Your task to perform on an android device: star an email in the gmail app Image 0: 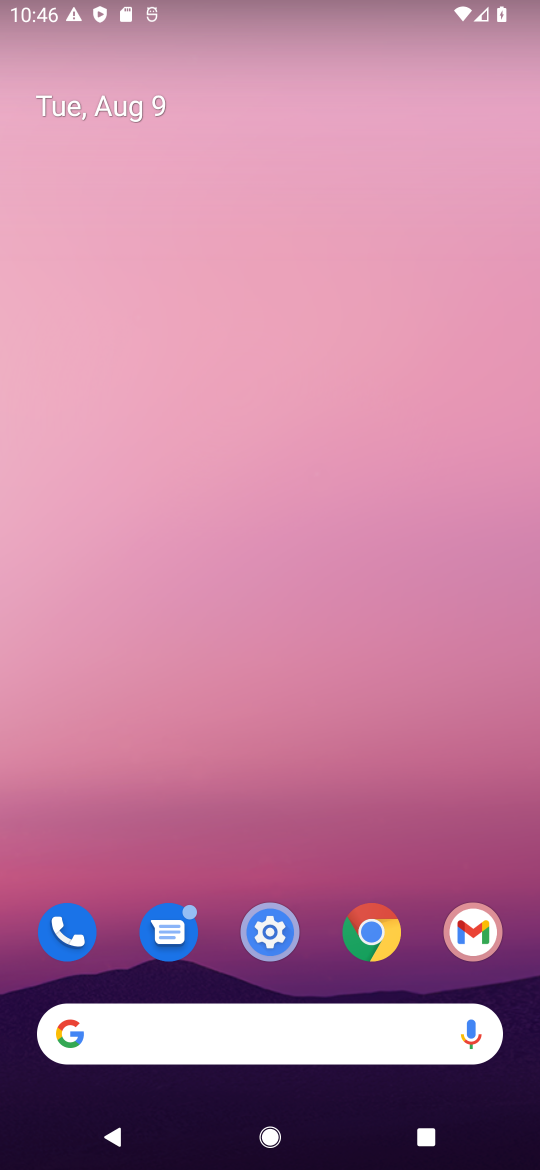
Step 0: drag from (302, 965) to (238, 2)
Your task to perform on an android device: star an email in the gmail app Image 1: 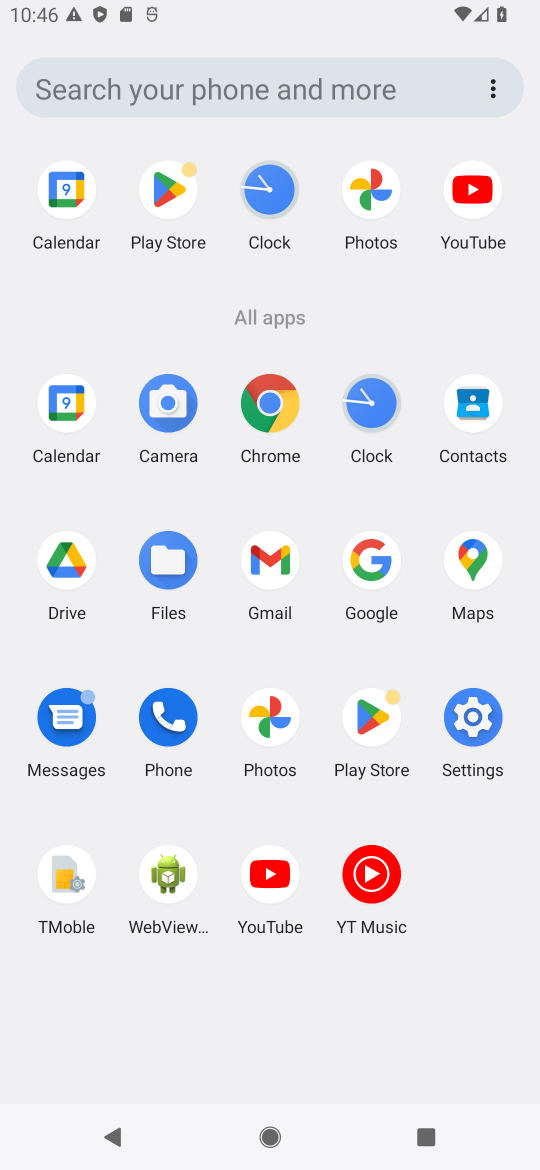
Step 1: click (268, 560)
Your task to perform on an android device: star an email in the gmail app Image 2: 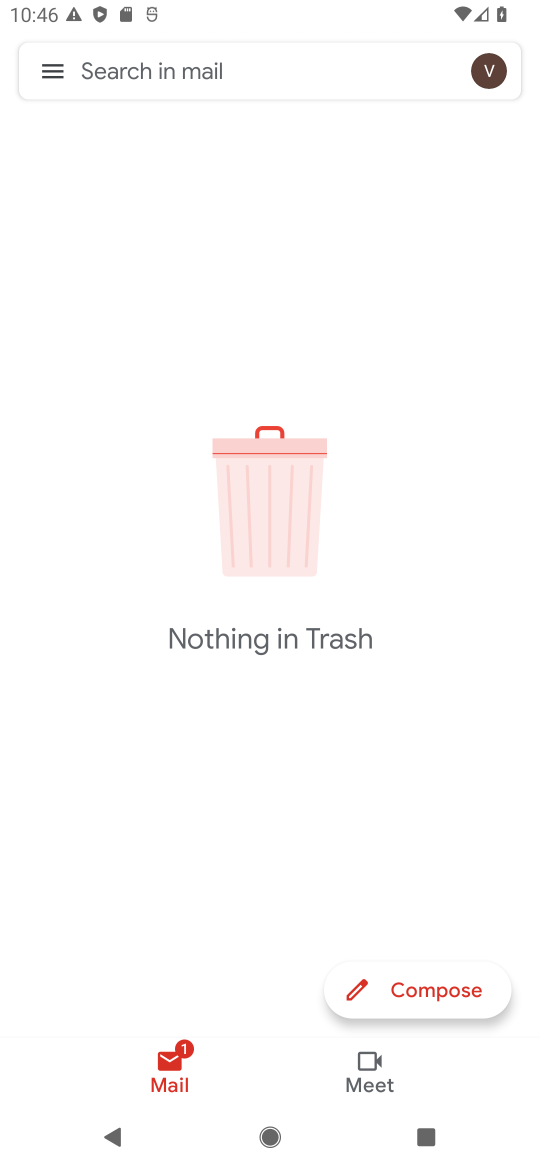
Step 2: click (49, 71)
Your task to perform on an android device: star an email in the gmail app Image 3: 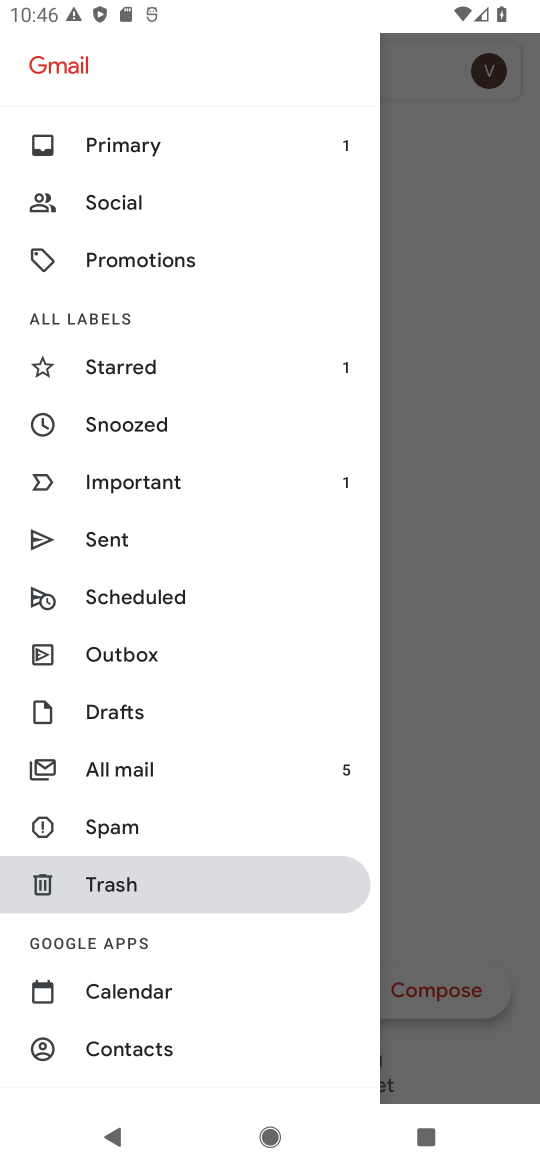
Step 3: drag from (157, 226) to (144, 391)
Your task to perform on an android device: star an email in the gmail app Image 4: 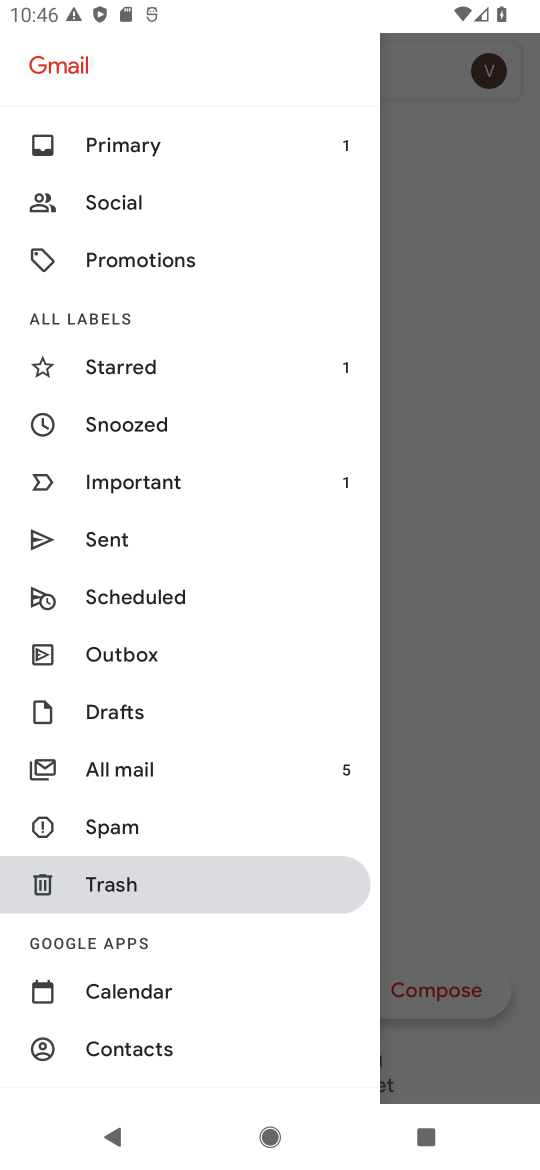
Step 4: click (134, 149)
Your task to perform on an android device: star an email in the gmail app Image 5: 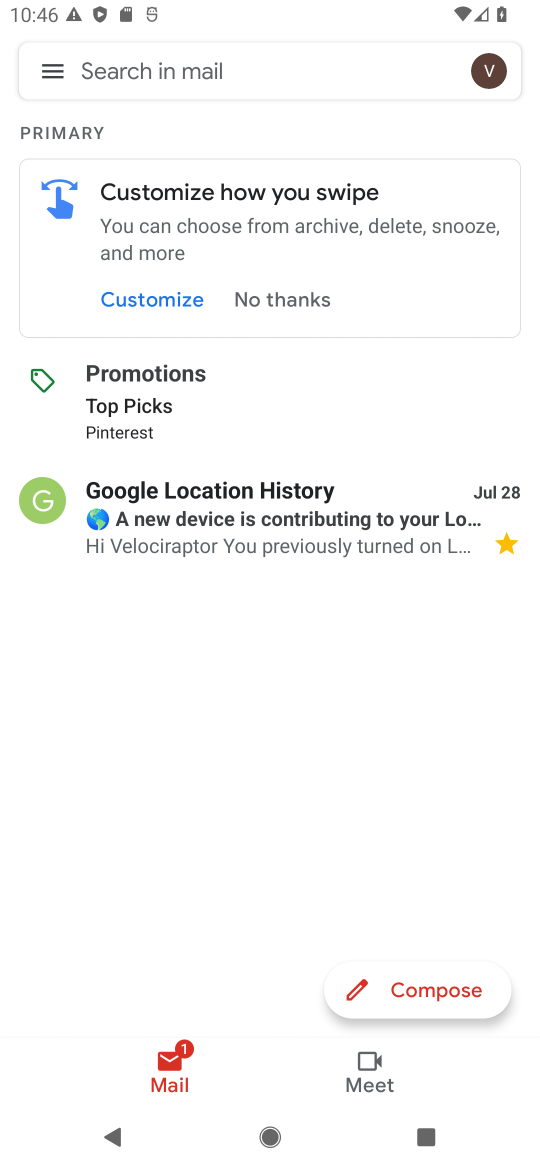
Step 5: task complete